Your task to perform on an android device: turn vacation reply on in the gmail app Image 0: 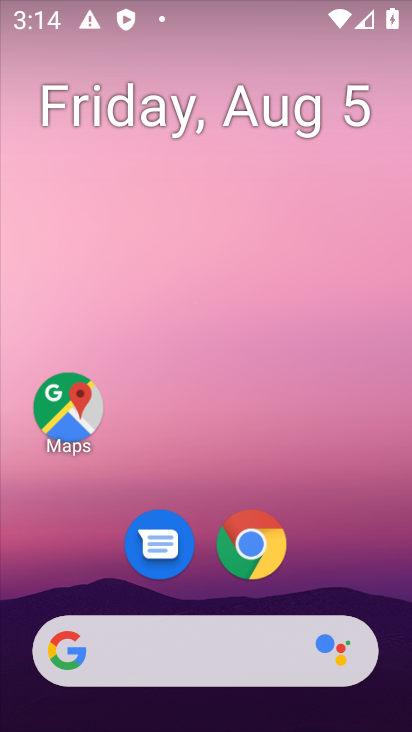
Step 0: drag from (183, 628) to (185, 469)
Your task to perform on an android device: turn vacation reply on in the gmail app Image 1: 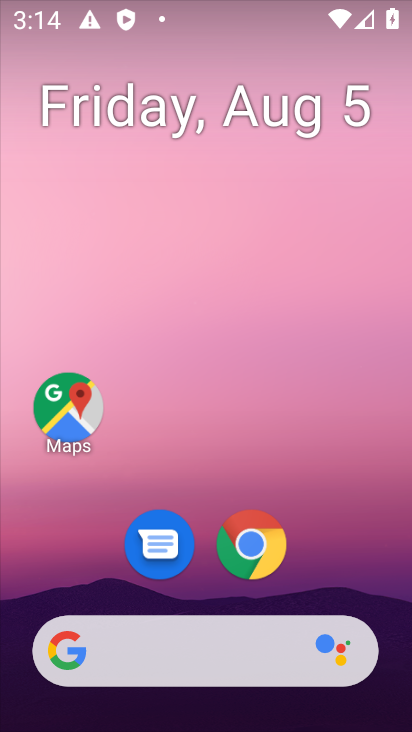
Step 1: drag from (172, 617) to (220, 290)
Your task to perform on an android device: turn vacation reply on in the gmail app Image 2: 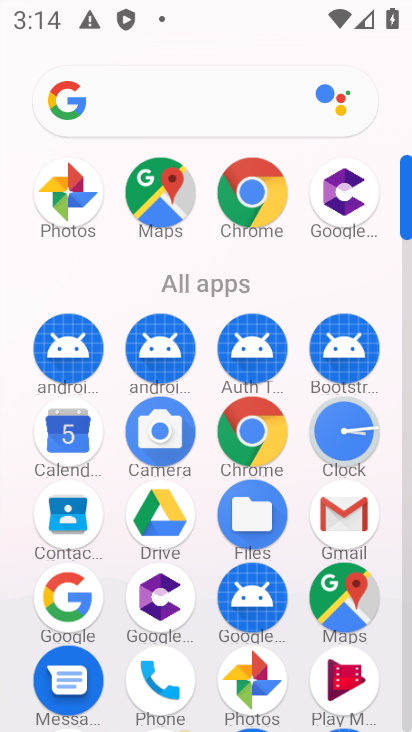
Step 2: click (350, 519)
Your task to perform on an android device: turn vacation reply on in the gmail app Image 3: 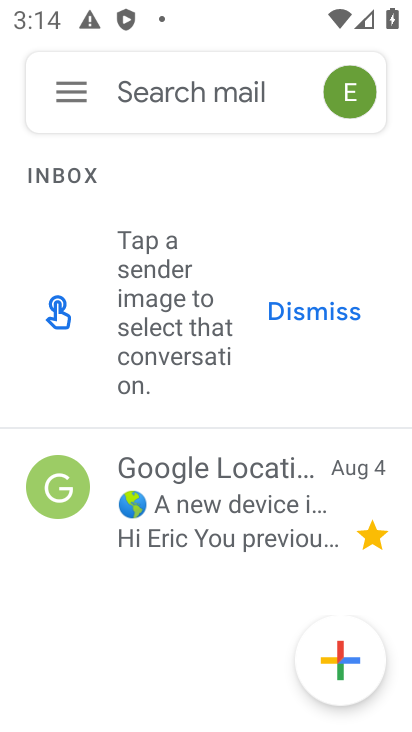
Step 3: click (54, 86)
Your task to perform on an android device: turn vacation reply on in the gmail app Image 4: 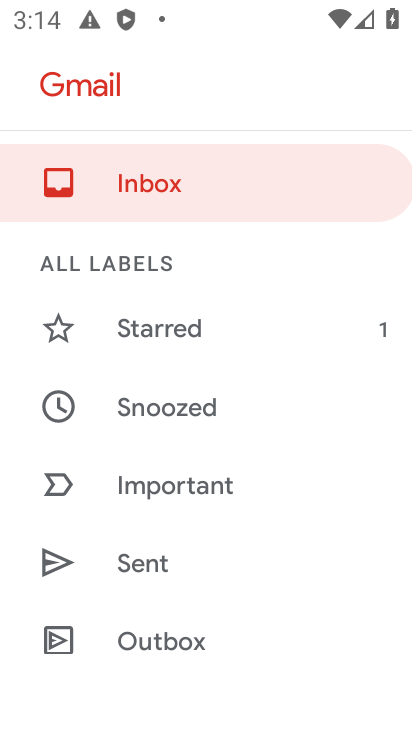
Step 4: drag from (158, 646) to (212, 278)
Your task to perform on an android device: turn vacation reply on in the gmail app Image 5: 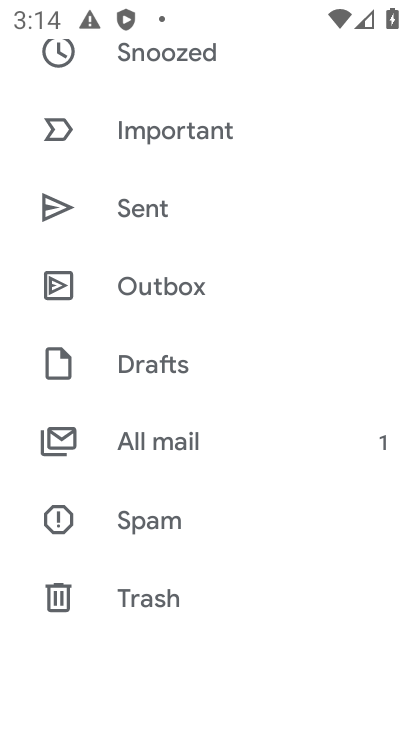
Step 5: drag from (155, 527) to (167, 381)
Your task to perform on an android device: turn vacation reply on in the gmail app Image 6: 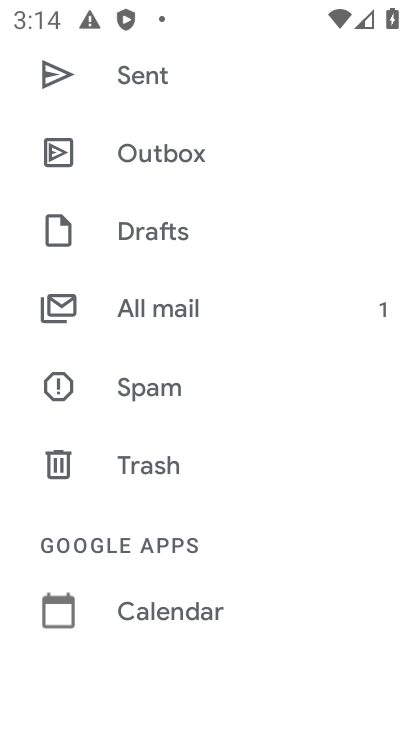
Step 6: drag from (153, 625) to (153, 242)
Your task to perform on an android device: turn vacation reply on in the gmail app Image 7: 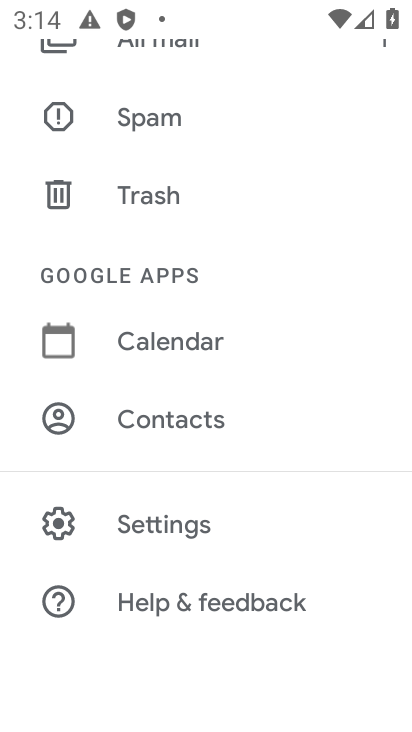
Step 7: click (129, 526)
Your task to perform on an android device: turn vacation reply on in the gmail app Image 8: 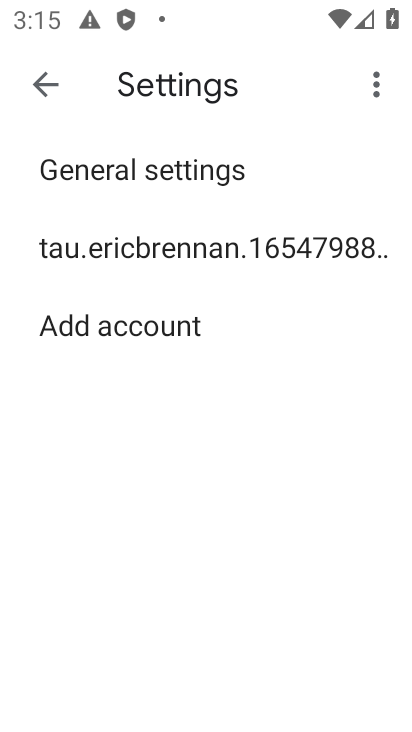
Step 8: click (148, 255)
Your task to perform on an android device: turn vacation reply on in the gmail app Image 9: 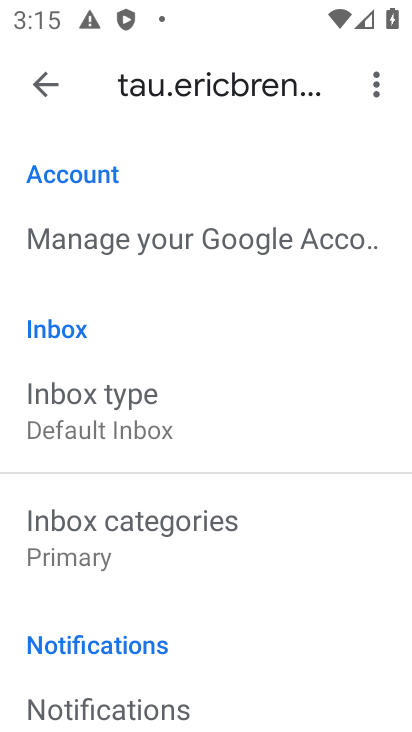
Step 9: drag from (89, 707) to (51, 241)
Your task to perform on an android device: turn vacation reply on in the gmail app Image 10: 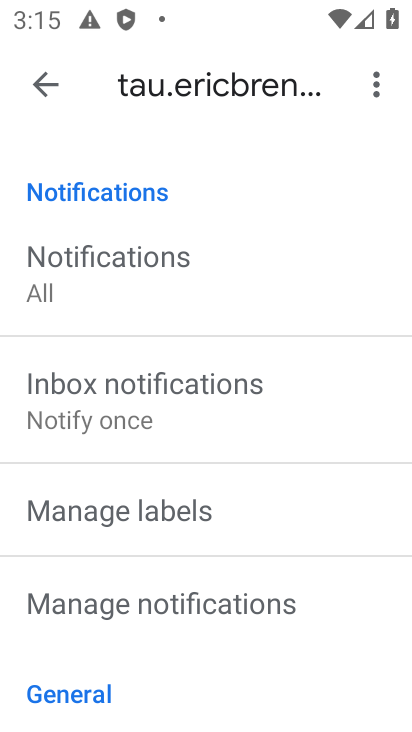
Step 10: drag from (138, 615) to (117, 152)
Your task to perform on an android device: turn vacation reply on in the gmail app Image 11: 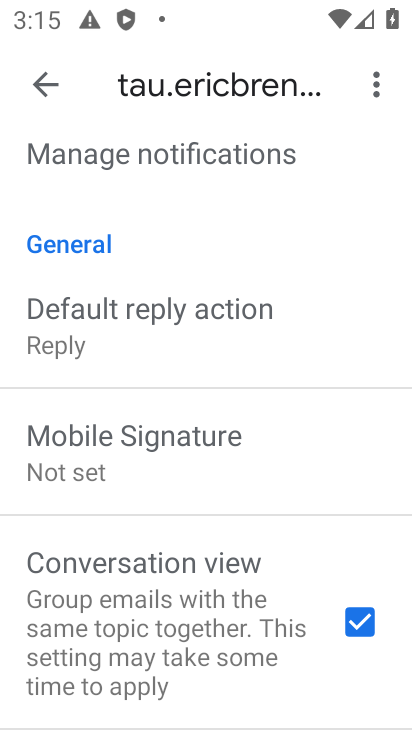
Step 11: drag from (126, 658) to (121, 308)
Your task to perform on an android device: turn vacation reply on in the gmail app Image 12: 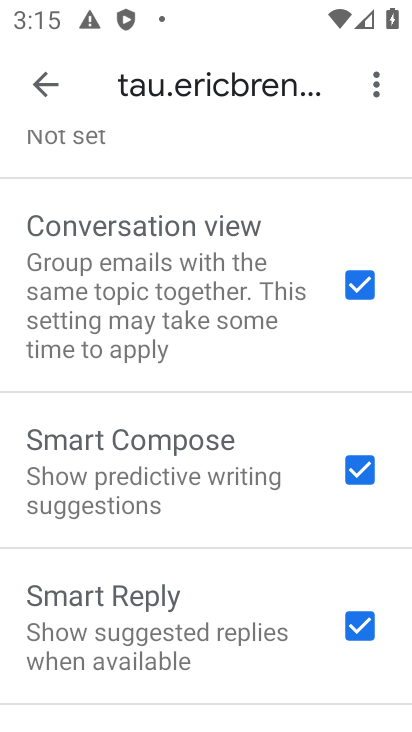
Step 12: drag from (140, 644) to (110, 292)
Your task to perform on an android device: turn vacation reply on in the gmail app Image 13: 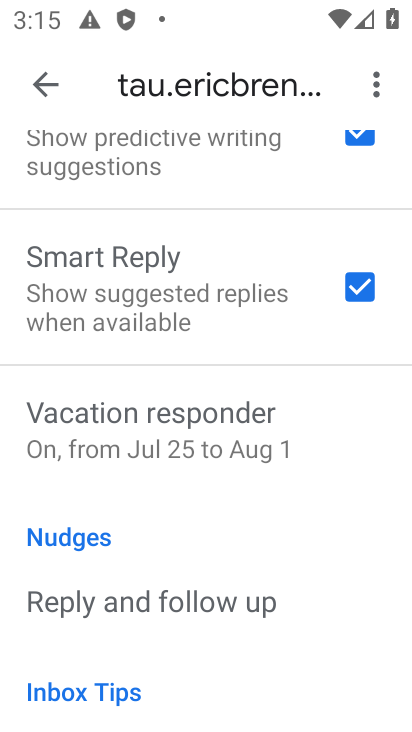
Step 13: click (118, 438)
Your task to perform on an android device: turn vacation reply on in the gmail app Image 14: 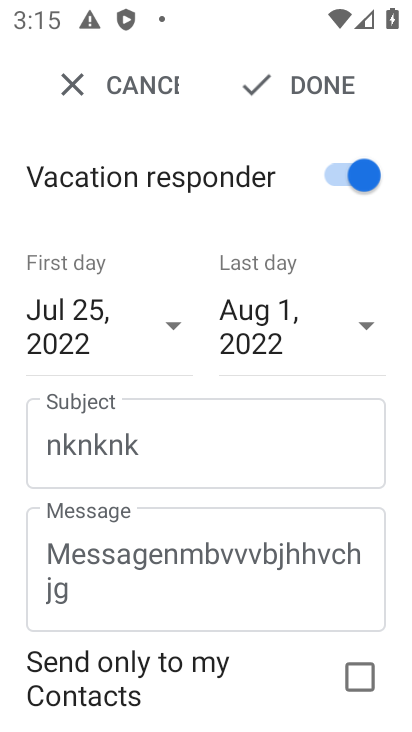
Step 14: task complete